Your task to perform on an android device: open app "The Home Depot" Image 0: 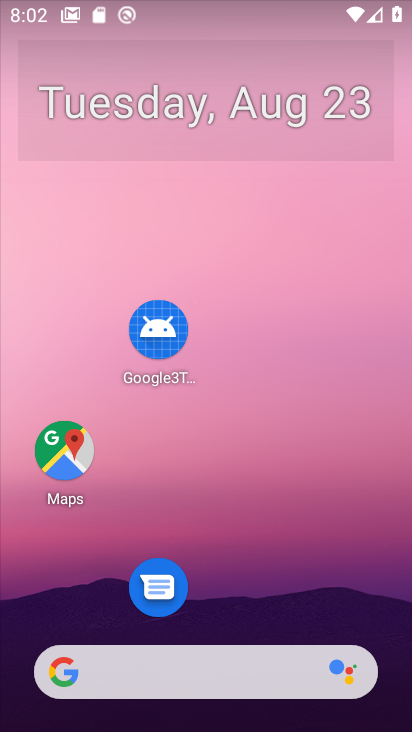
Step 0: drag from (274, 626) to (294, 50)
Your task to perform on an android device: open app "The Home Depot" Image 1: 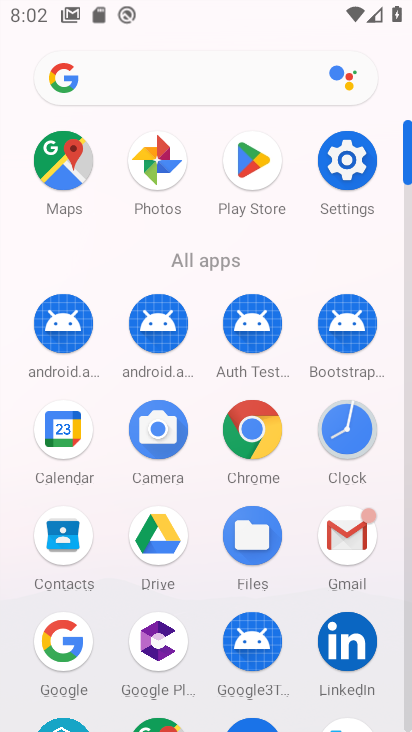
Step 1: click (350, 181)
Your task to perform on an android device: open app "The Home Depot" Image 2: 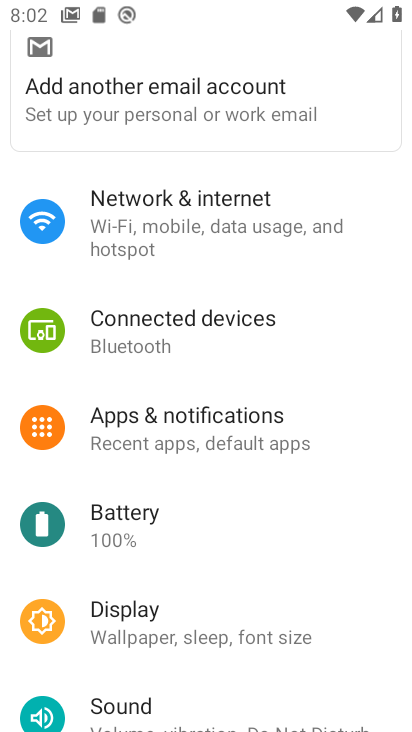
Step 2: press home button
Your task to perform on an android device: open app "The Home Depot" Image 3: 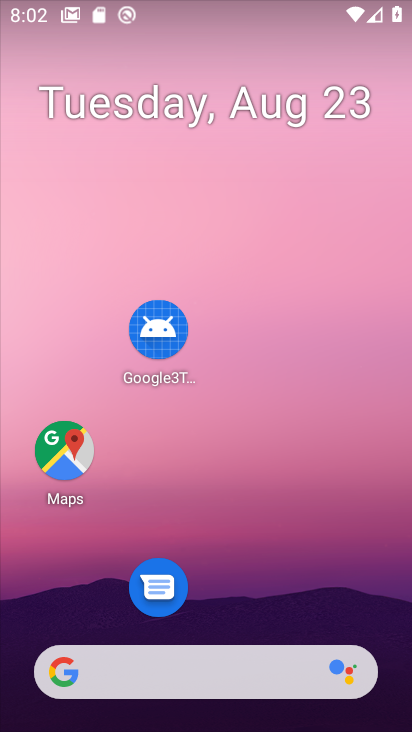
Step 3: drag from (290, 639) to (292, 128)
Your task to perform on an android device: open app "The Home Depot" Image 4: 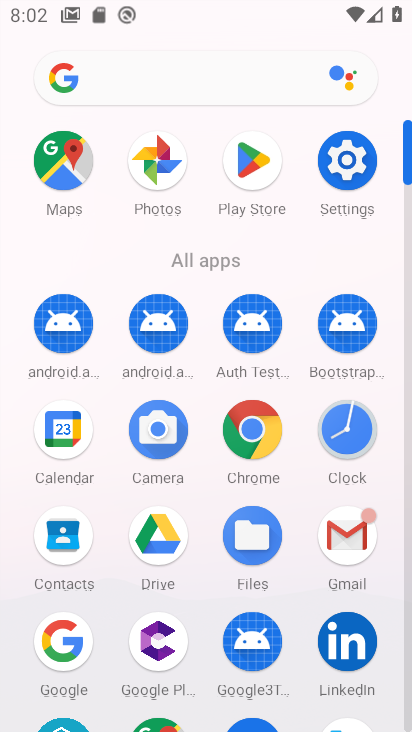
Step 4: click (326, 173)
Your task to perform on an android device: open app "The Home Depot" Image 5: 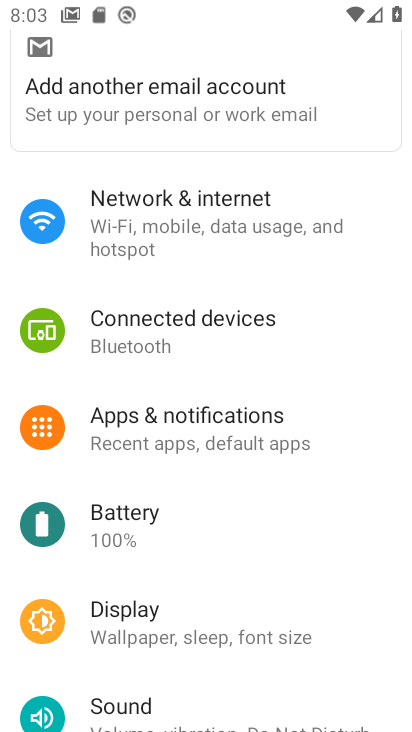
Step 5: press home button
Your task to perform on an android device: open app "The Home Depot" Image 6: 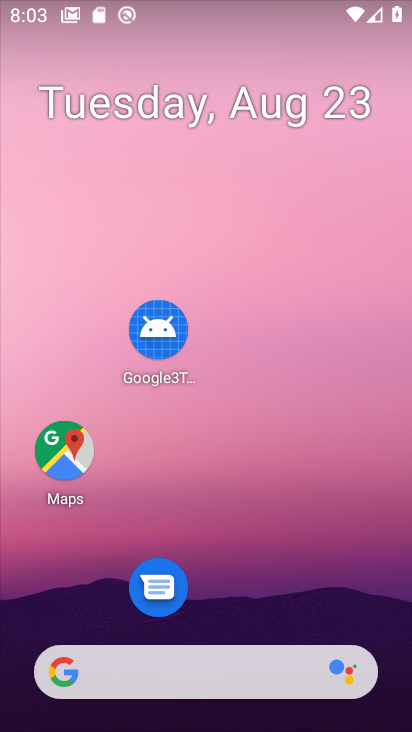
Step 6: drag from (260, 621) to (216, 63)
Your task to perform on an android device: open app "The Home Depot" Image 7: 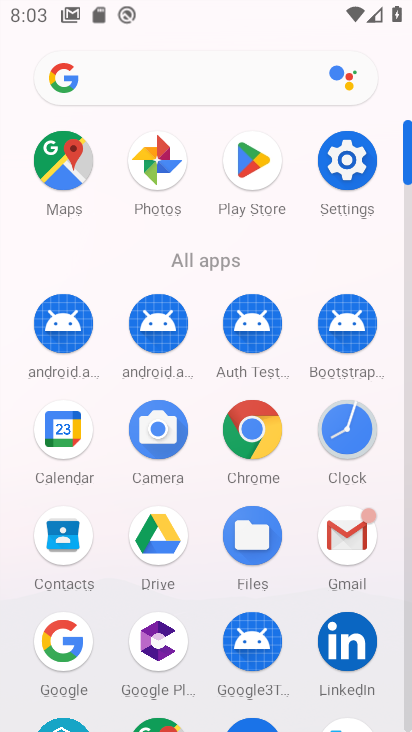
Step 7: click (252, 145)
Your task to perform on an android device: open app "The Home Depot" Image 8: 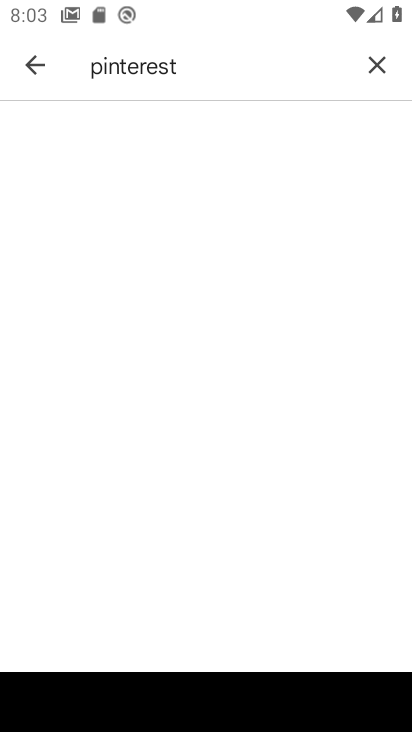
Step 8: click (371, 64)
Your task to perform on an android device: open app "The Home Depot" Image 9: 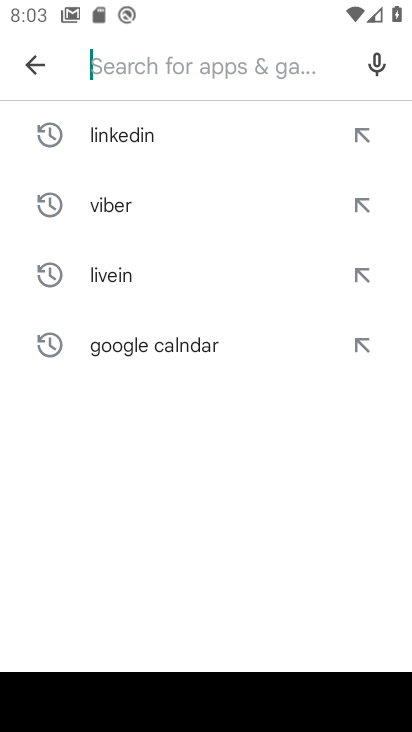
Step 9: type "the home depot"
Your task to perform on an android device: open app "The Home Depot" Image 10: 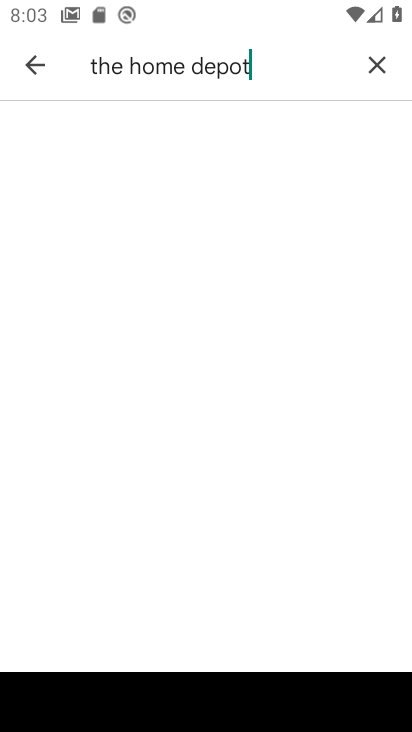
Step 10: task complete